Your task to perform on an android device: change alarm snooze length Image 0: 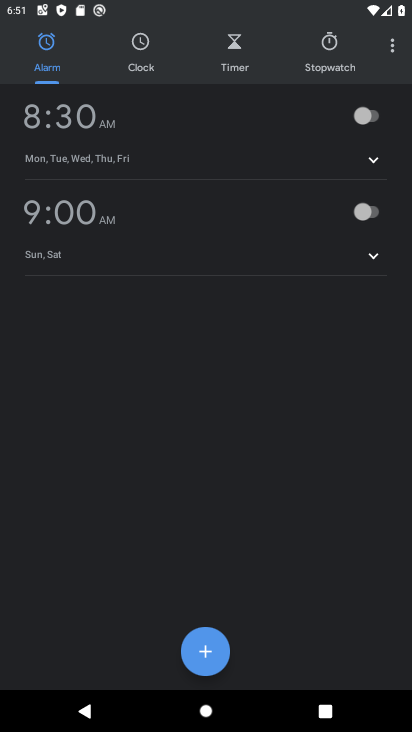
Step 0: press home button
Your task to perform on an android device: change alarm snooze length Image 1: 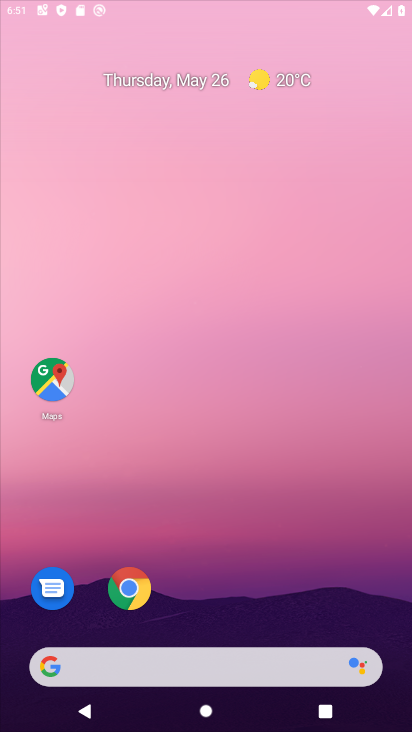
Step 1: drag from (347, 595) to (305, 23)
Your task to perform on an android device: change alarm snooze length Image 2: 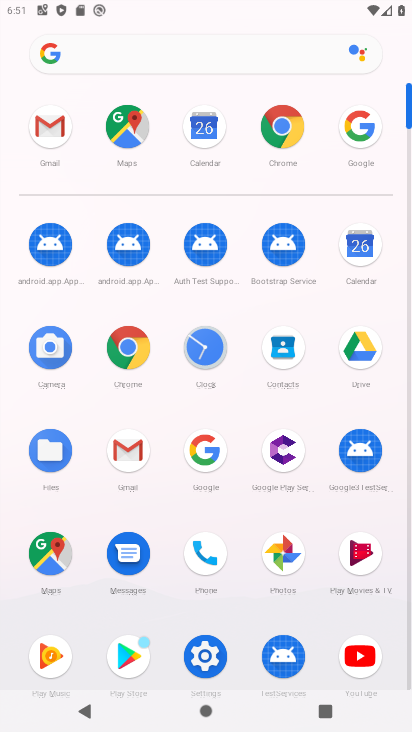
Step 2: click (217, 355)
Your task to perform on an android device: change alarm snooze length Image 3: 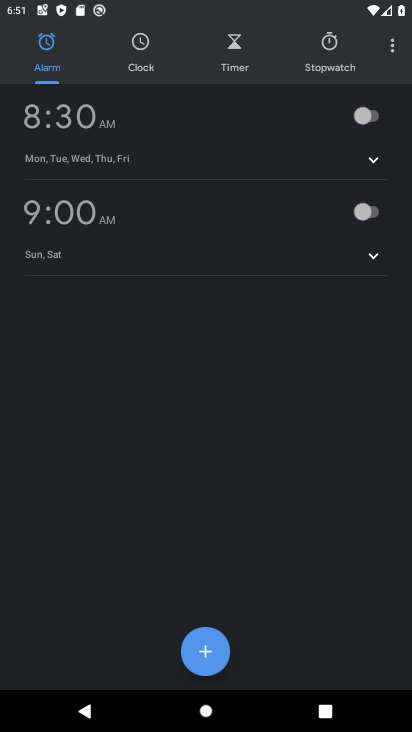
Step 3: click (391, 46)
Your task to perform on an android device: change alarm snooze length Image 4: 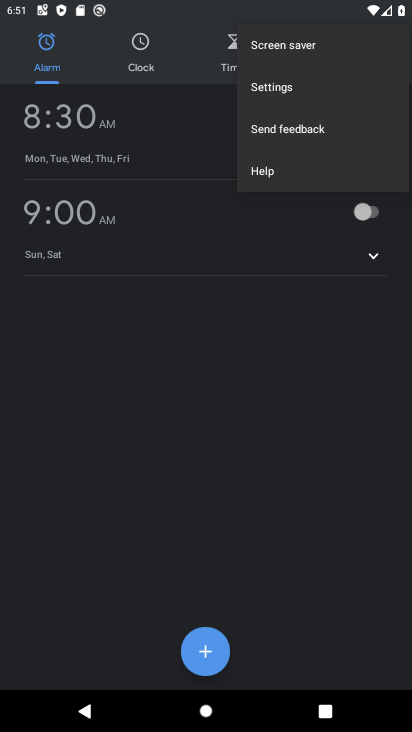
Step 4: click (283, 80)
Your task to perform on an android device: change alarm snooze length Image 5: 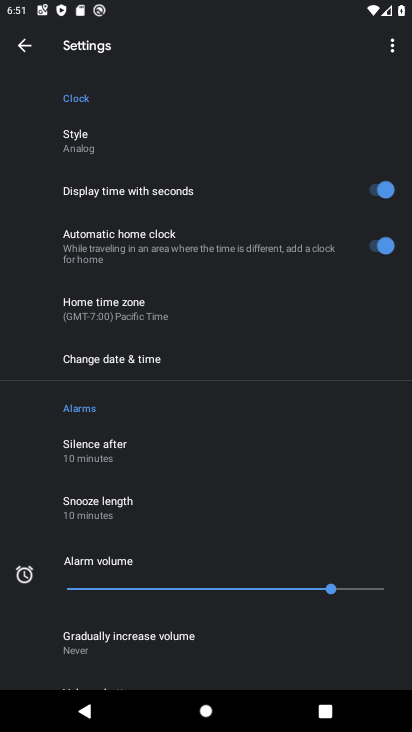
Step 5: drag from (112, 571) to (162, 396)
Your task to perform on an android device: change alarm snooze length Image 6: 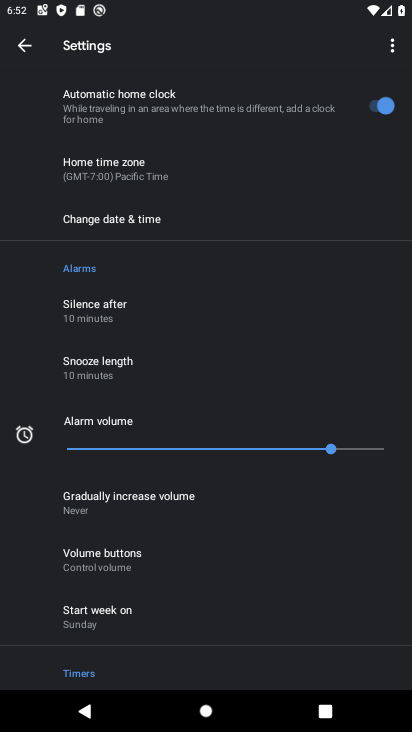
Step 6: click (62, 378)
Your task to perform on an android device: change alarm snooze length Image 7: 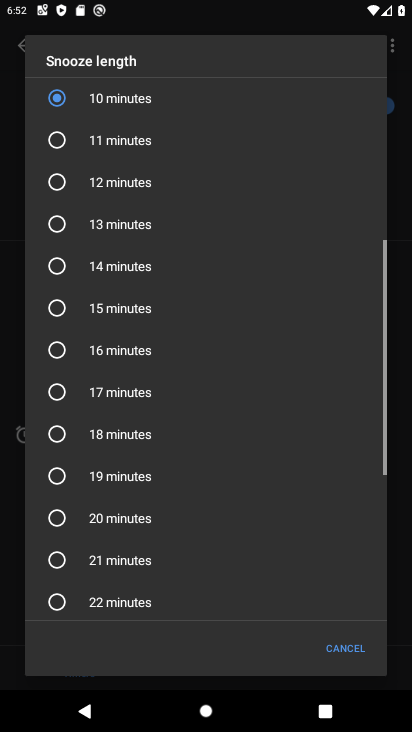
Step 7: click (117, 397)
Your task to perform on an android device: change alarm snooze length Image 8: 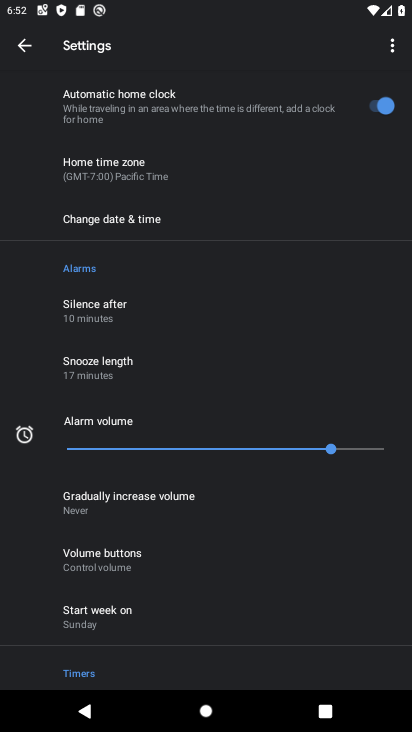
Step 8: task complete